Your task to perform on an android device: Search for Italian restaurants on Maps Image 0: 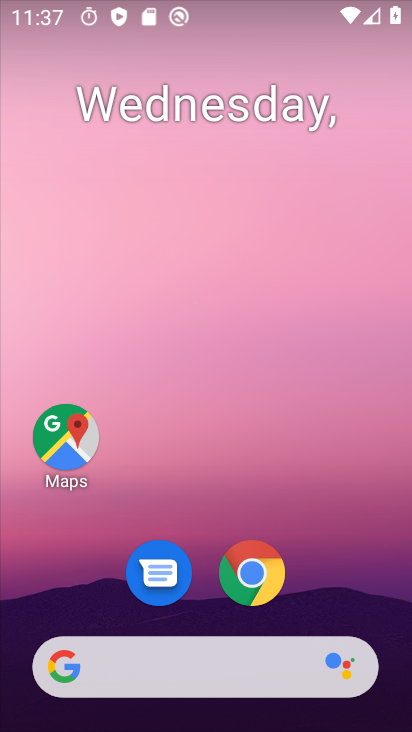
Step 0: click (57, 427)
Your task to perform on an android device: Search for Italian restaurants on Maps Image 1: 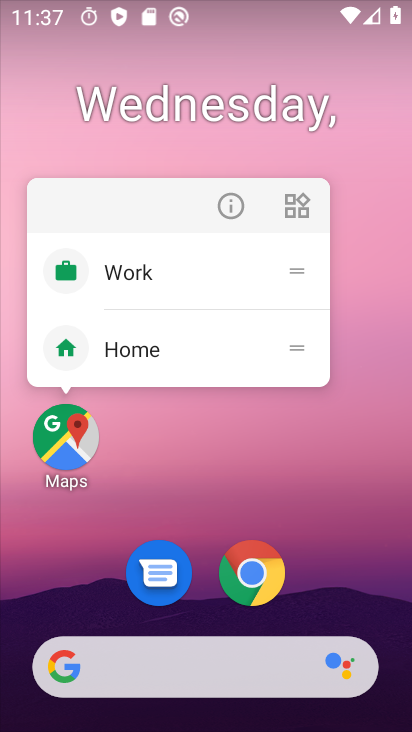
Step 1: click (57, 428)
Your task to perform on an android device: Search for Italian restaurants on Maps Image 2: 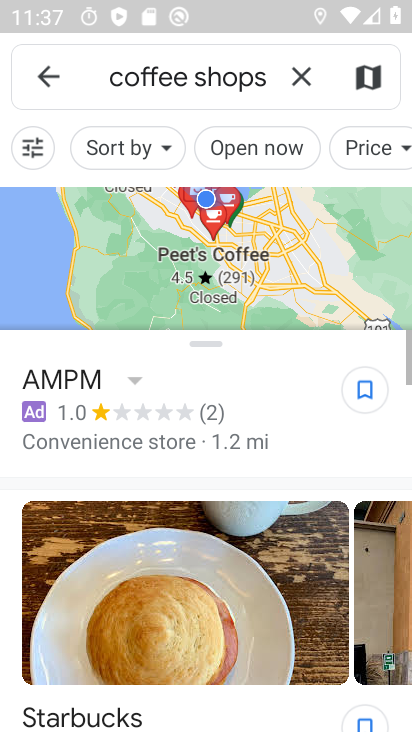
Step 2: click (291, 75)
Your task to perform on an android device: Search for Italian restaurants on Maps Image 3: 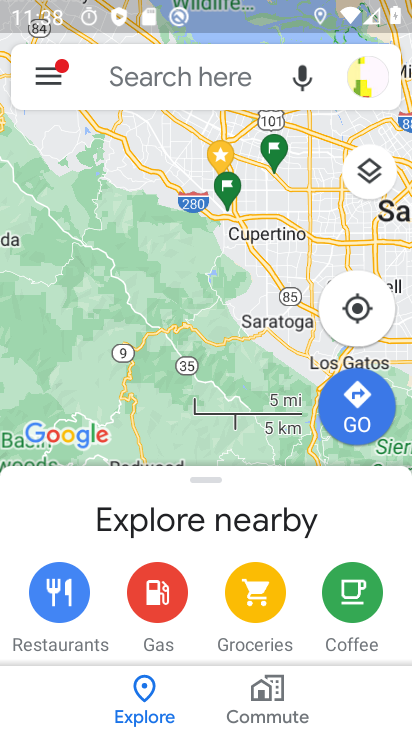
Step 3: click (159, 75)
Your task to perform on an android device: Search for Italian restaurants on Maps Image 4: 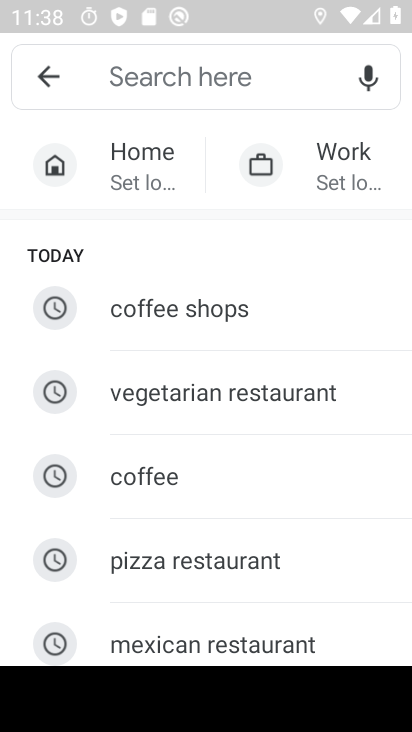
Step 4: type "Italian restaurants"
Your task to perform on an android device: Search for Italian restaurants on Maps Image 5: 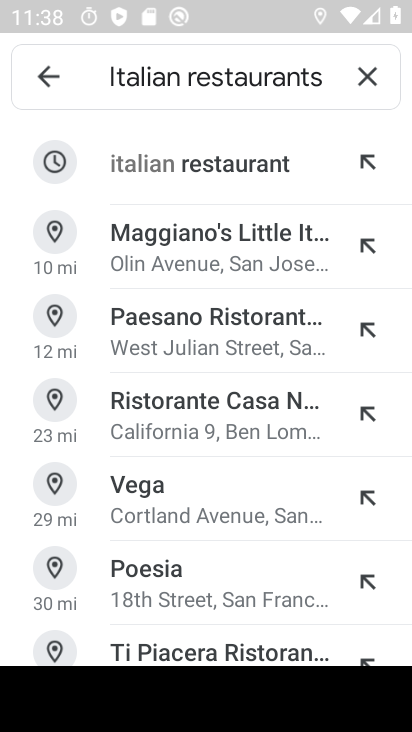
Step 5: click (203, 161)
Your task to perform on an android device: Search for Italian restaurants on Maps Image 6: 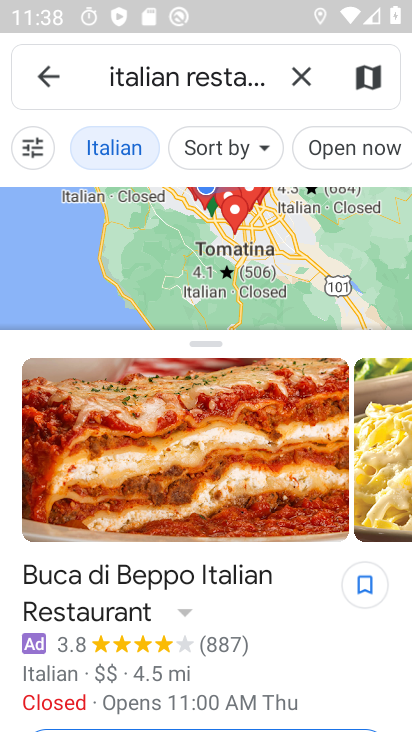
Step 6: task complete